Your task to perform on an android device: Show me productivity apps on the Play Store Image 0: 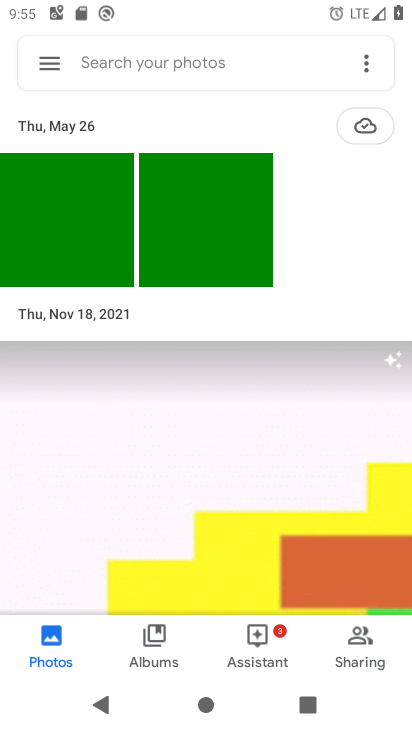
Step 0: press home button
Your task to perform on an android device: Show me productivity apps on the Play Store Image 1: 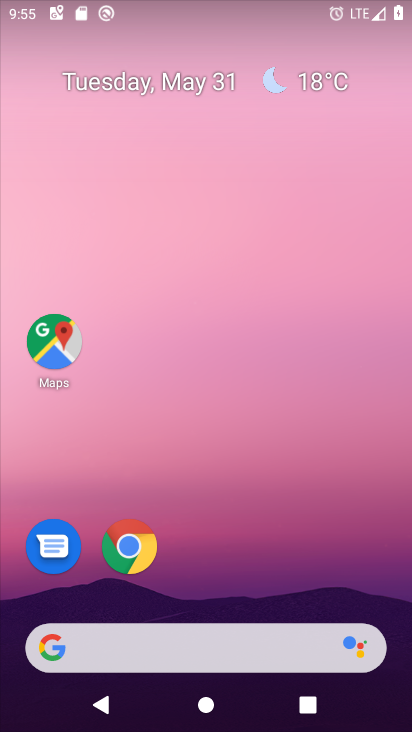
Step 1: drag from (219, 541) to (310, 49)
Your task to perform on an android device: Show me productivity apps on the Play Store Image 2: 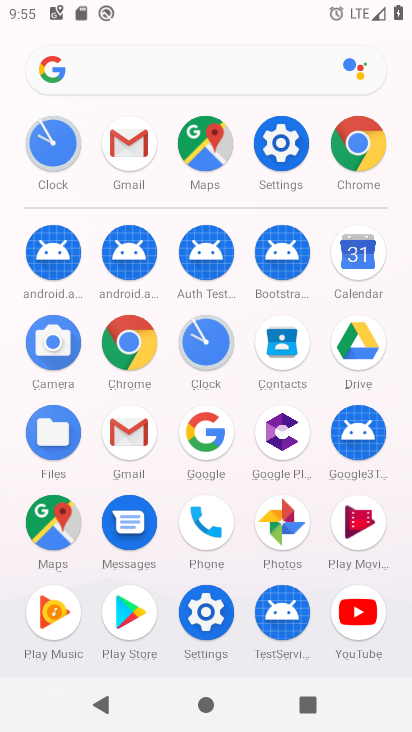
Step 2: click (122, 624)
Your task to perform on an android device: Show me productivity apps on the Play Store Image 3: 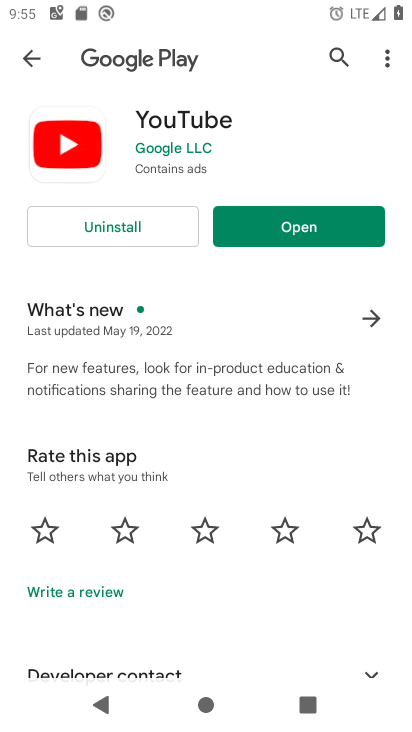
Step 3: click (35, 44)
Your task to perform on an android device: Show me productivity apps on the Play Store Image 4: 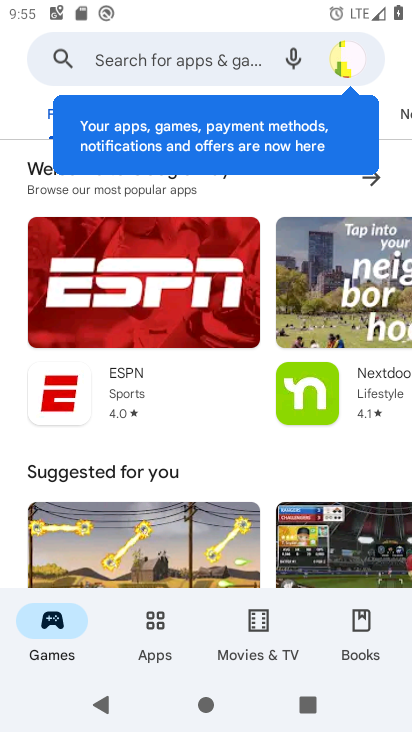
Step 4: click (159, 631)
Your task to perform on an android device: Show me productivity apps on the Play Store Image 5: 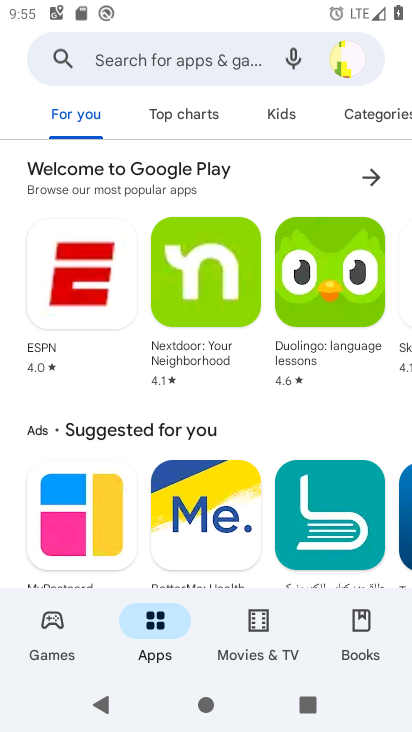
Step 5: click (357, 118)
Your task to perform on an android device: Show me productivity apps on the Play Store Image 6: 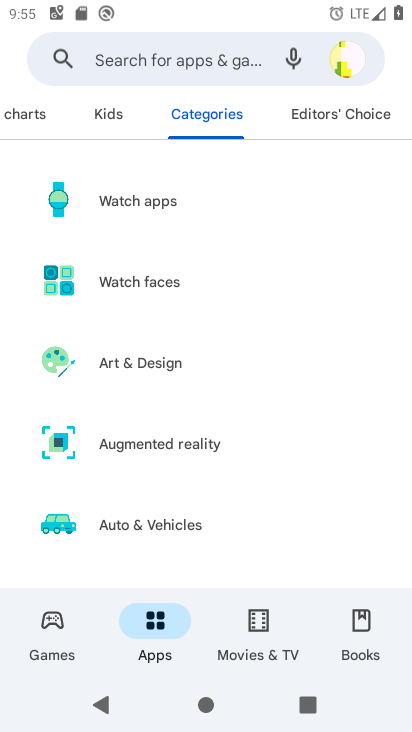
Step 6: drag from (148, 508) to (208, 84)
Your task to perform on an android device: Show me productivity apps on the Play Store Image 7: 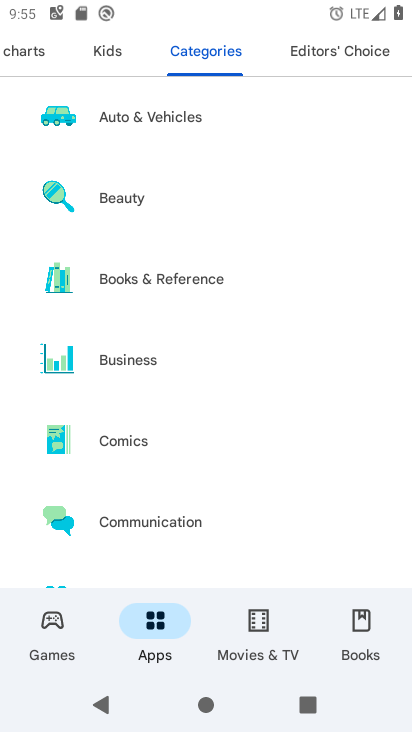
Step 7: drag from (148, 537) to (230, 56)
Your task to perform on an android device: Show me productivity apps on the Play Store Image 8: 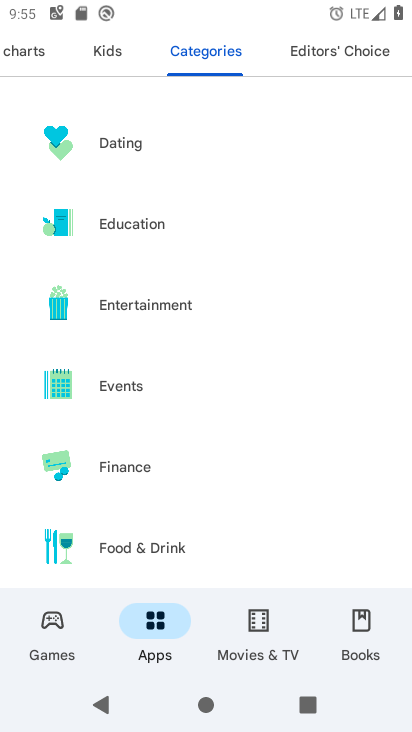
Step 8: drag from (195, 420) to (235, 21)
Your task to perform on an android device: Show me productivity apps on the Play Store Image 9: 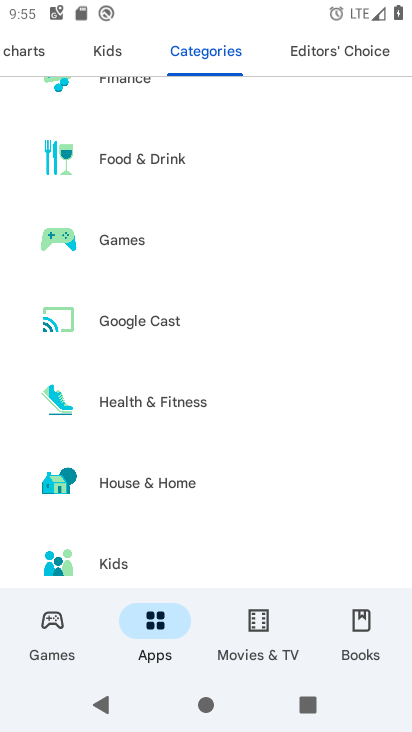
Step 9: drag from (154, 542) to (299, 18)
Your task to perform on an android device: Show me productivity apps on the Play Store Image 10: 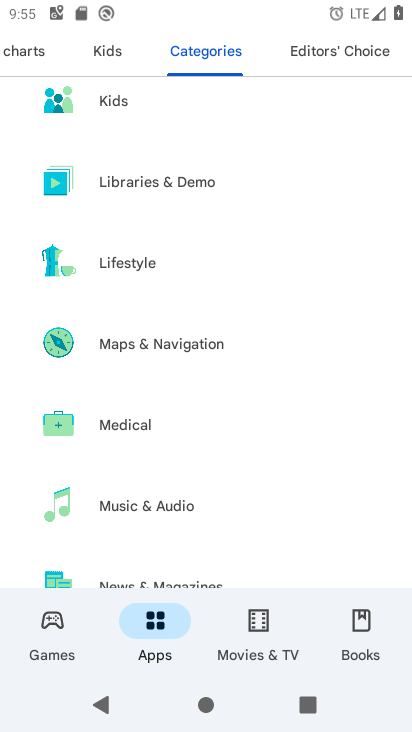
Step 10: drag from (127, 531) to (240, 1)
Your task to perform on an android device: Show me productivity apps on the Play Store Image 11: 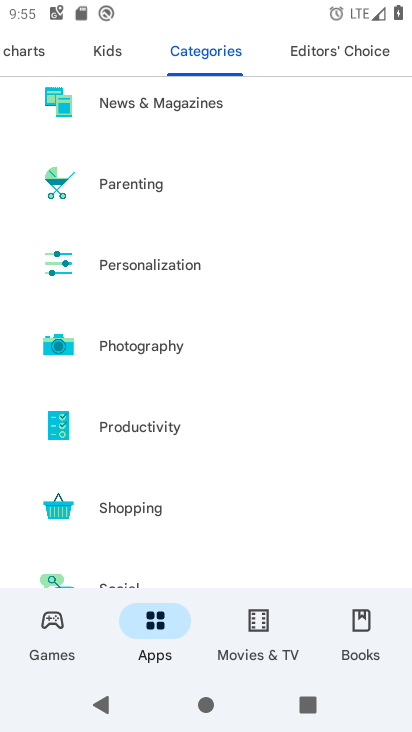
Step 11: click (151, 436)
Your task to perform on an android device: Show me productivity apps on the Play Store Image 12: 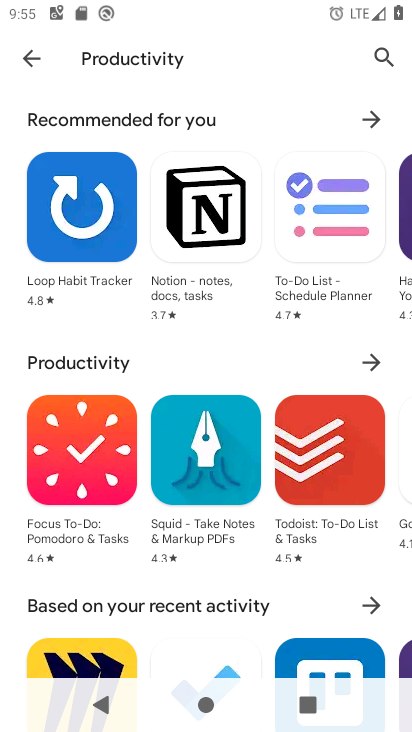
Step 12: task complete